Your task to perform on an android device: toggle javascript in the chrome app Image 0: 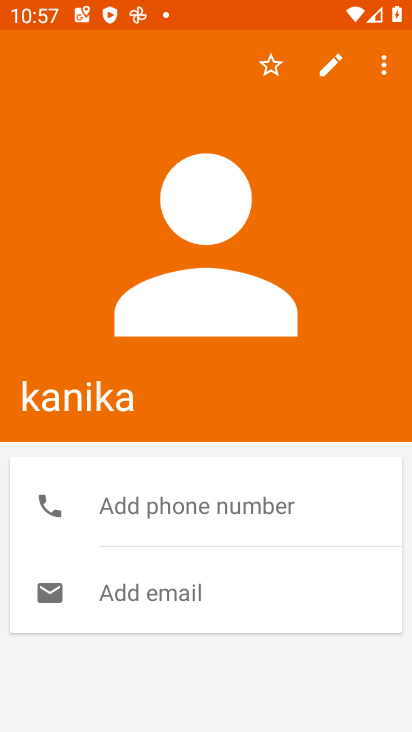
Step 0: press home button
Your task to perform on an android device: toggle javascript in the chrome app Image 1: 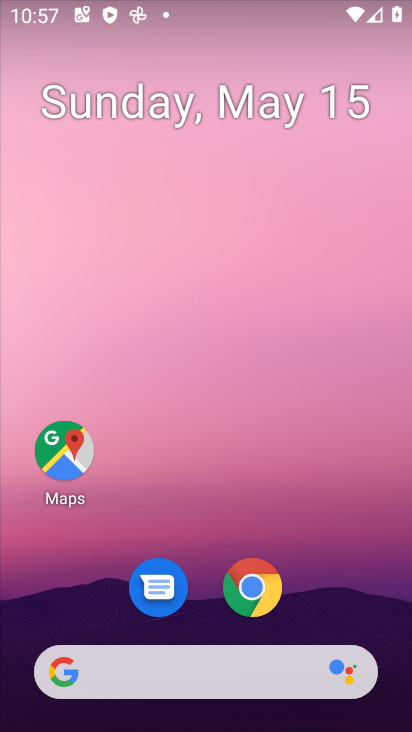
Step 1: drag from (391, 550) to (306, 67)
Your task to perform on an android device: toggle javascript in the chrome app Image 2: 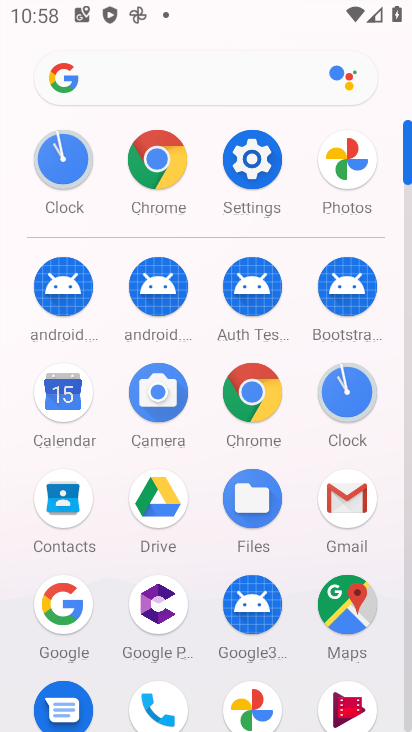
Step 2: click (140, 174)
Your task to perform on an android device: toggle javascript in the chrome app Image 3: 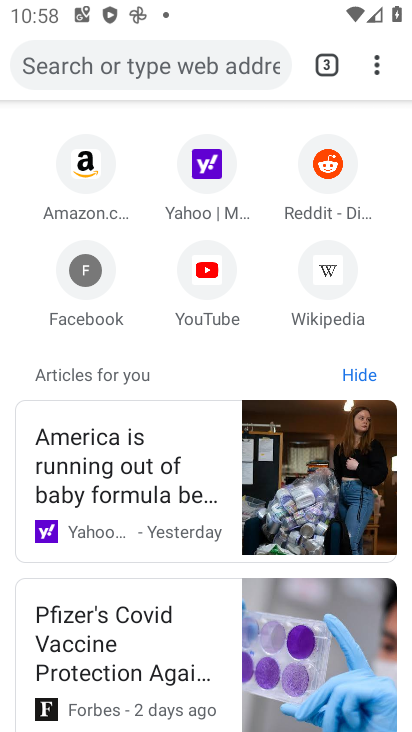
Step 3: click (373, 61)
Your task to perform on an android device: toggle javascript in the chrome app Image 4: 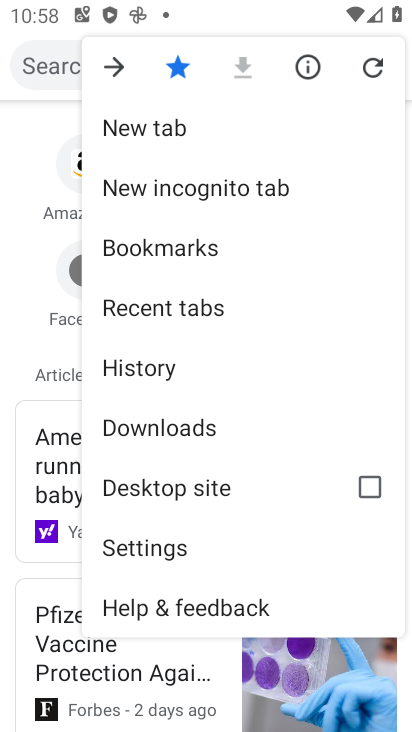
Step 4: click (218, 563)
Your task to perform on an android device: toggle javascript in the chrome app Image 5: 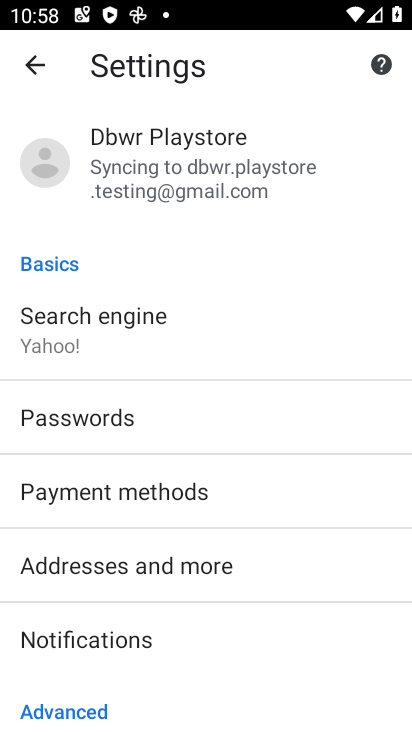
Step 5: drag from (241, 581) to (253, 248)
Your task to perform on an android device: toggle javascript in the chrome app Image 6: 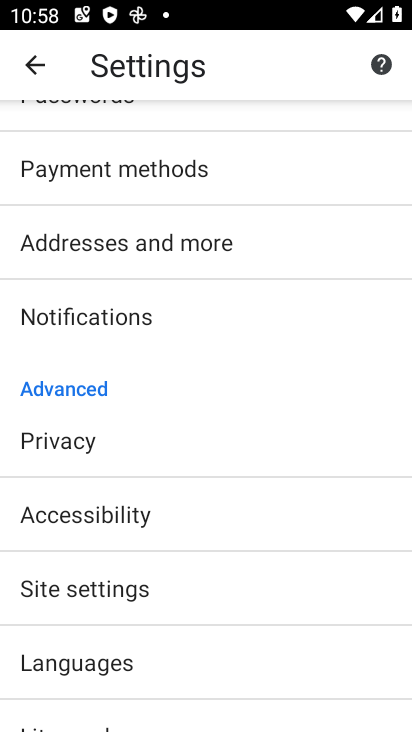
Step 6: click (198, 600)
Your task to perform on an android device: toggle javascript in the chrome app Image 7: 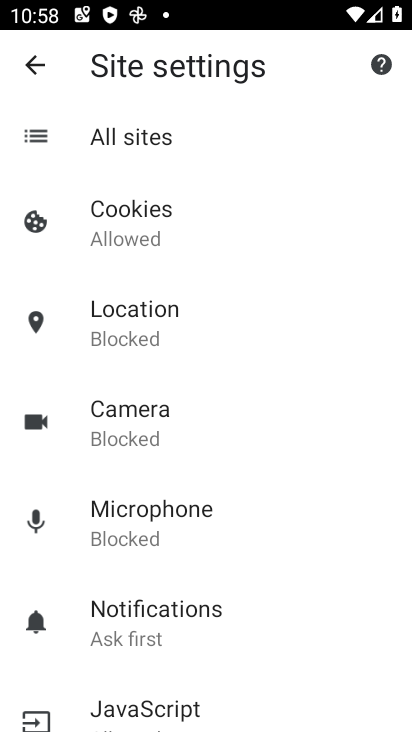
Step 7: click (165, 703)
Your task to perform on an android device: toggle javascript in the chrome app Image 8: 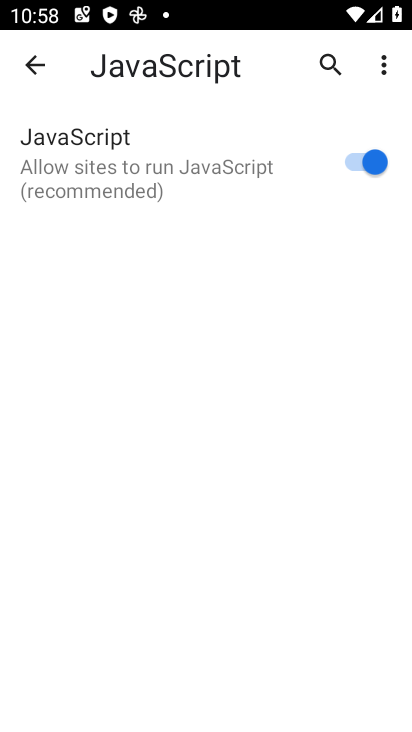
Step 8: click (351, 171)
Your task to perform on an android device: toggle javascript in the chrome app Image 9: 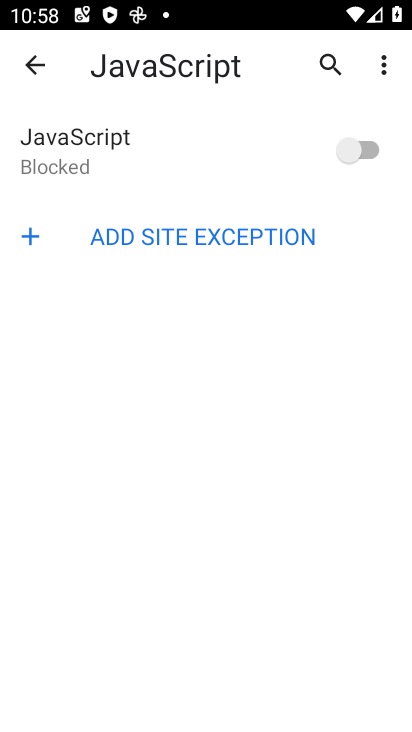
Step 9: task complete